Your task to perform on an android device: Go to sound settings Image 0: 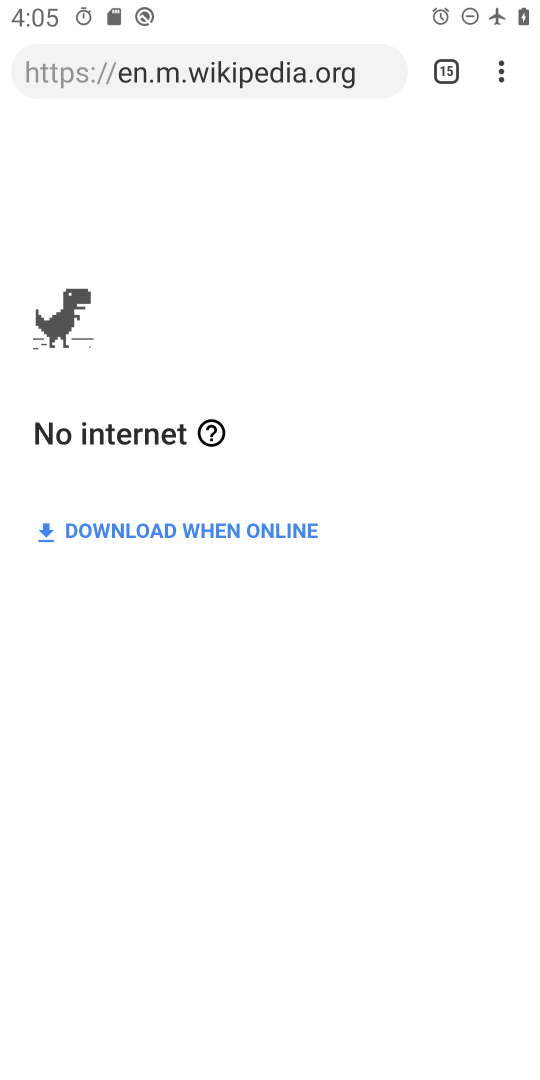
Step 0: press home button
Your task to perform on an android device: Go to sound settings Image 1: 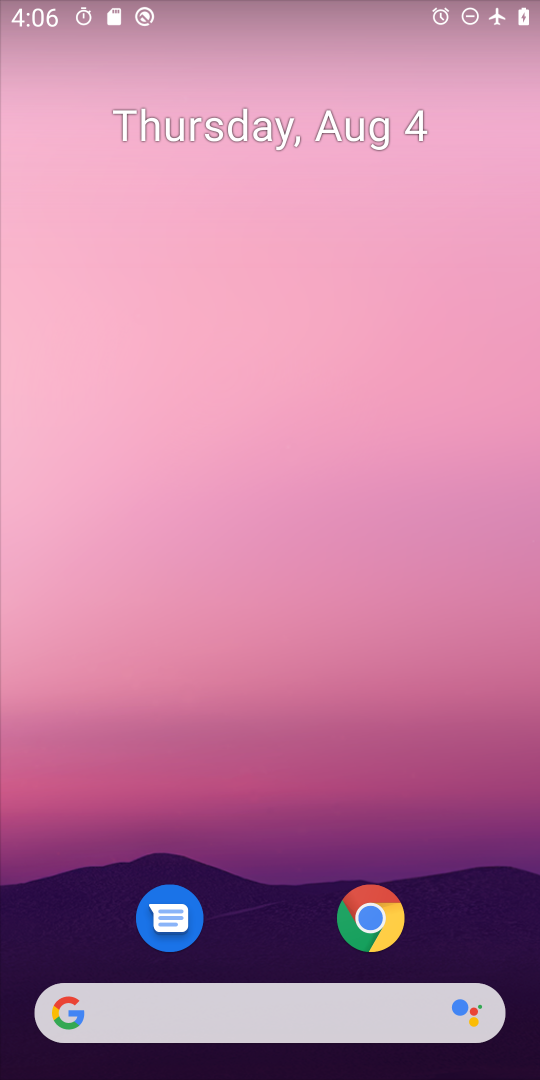
Step 1: drag from (242, 915) to (242, 297)
Your task to perform on an android device: Go to sound settings Image 2: 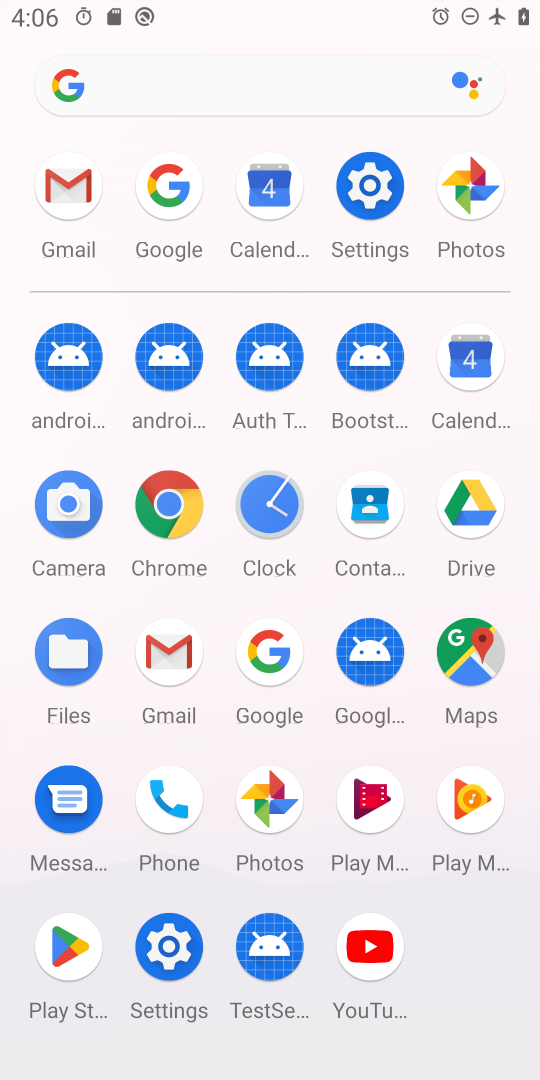
Step 2: click (361, 201)
Your task to perform on an android device: Go to sound settings Image 3: 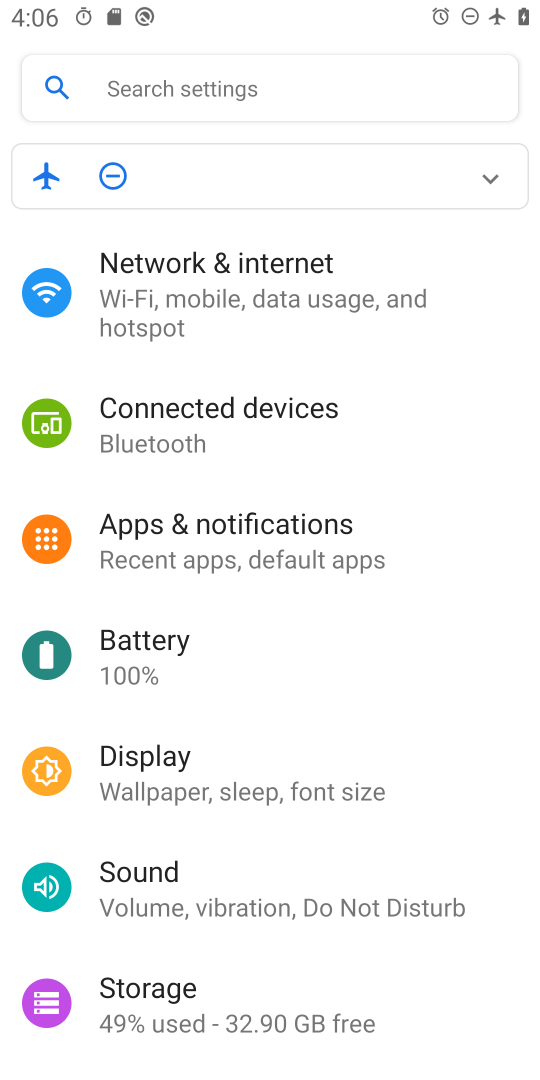
Step 3: click (146, 877)
Your task to perform on an android device: Go to sound settings Image 4: 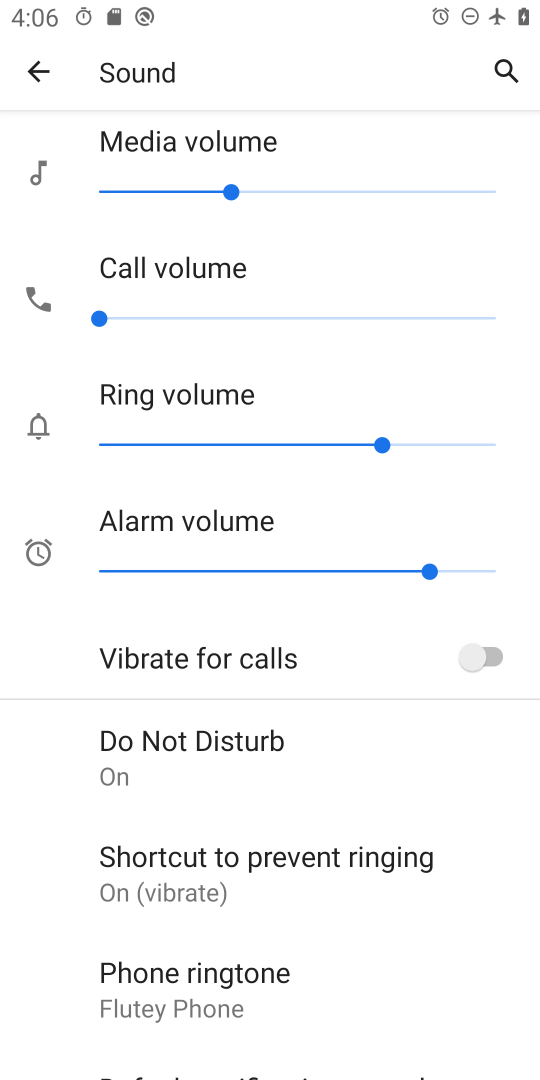
Step 4: task complete